Your task to perform on an android device: Open display settings Image 0: 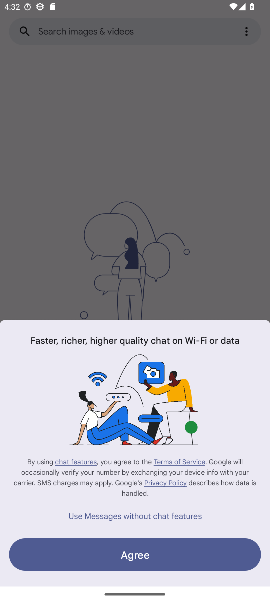
Step 0: press home button
Your task to perform on an android device: Open display settings Image 1: 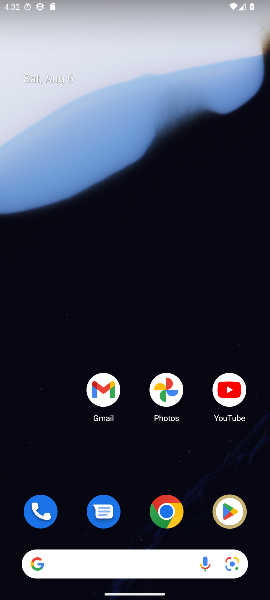
Step 1: drag from (125, 367) to (149, 151)
Your task to perform on an android device: Open display settings Image 2: 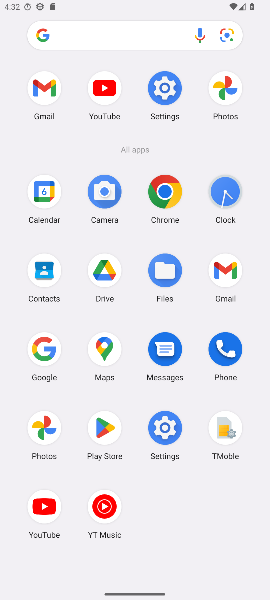
Step 2: click (171, 87)
Your task to perform on an android device: Open display settings Image 3: 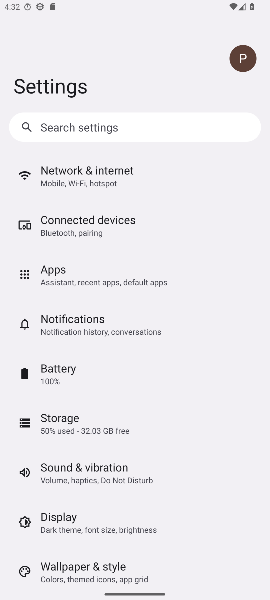
Step 3: click (77, 526)
Your task to perform on an android device: Open display settings Image 4: 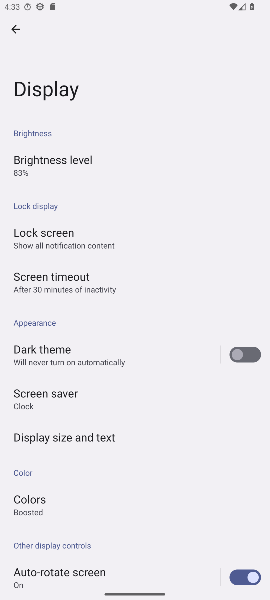
Step 4: task complete